Your task to perform on an android device: set an alarm Image 0: 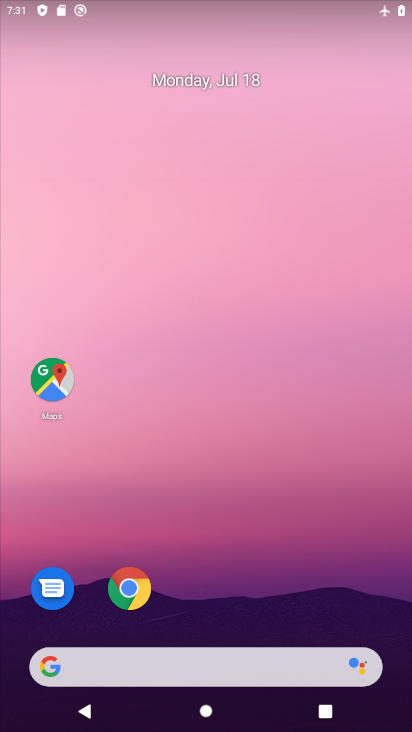
Step 0: drag from (179, 621) to (110, 37)
Your task to perform on an android device: set an alarm Image 1: 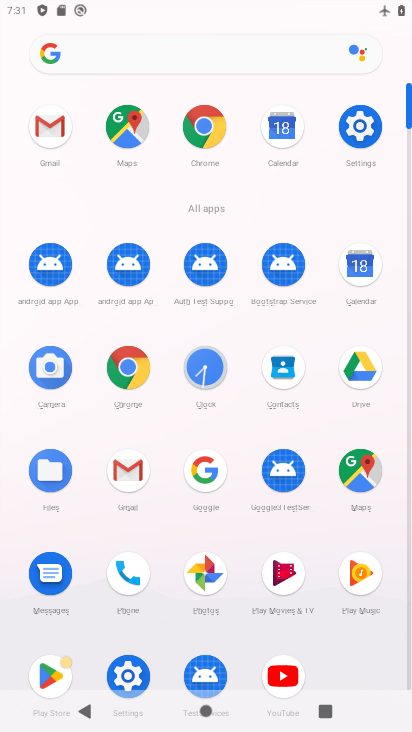
Step 1: click (202, 375)
Your task to perform on an android device: set an alarm Image 2: 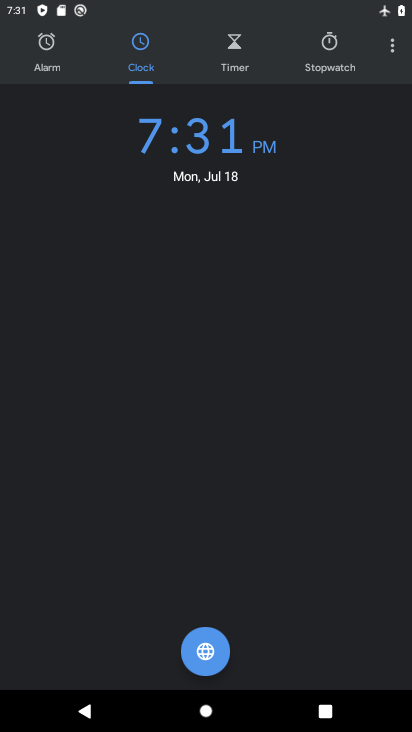
Step 2: click (55, 58)
Your task to perform on an android device: set an alarm Image 3: 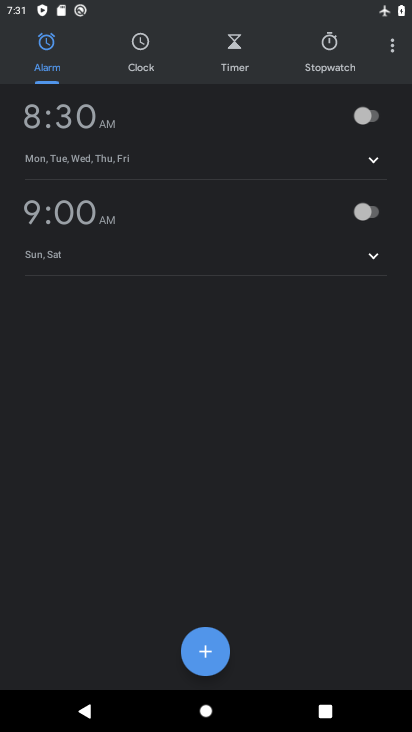
Step 3: click (183, 124)
Your task to perform on an android device: set an alarm Image 4: 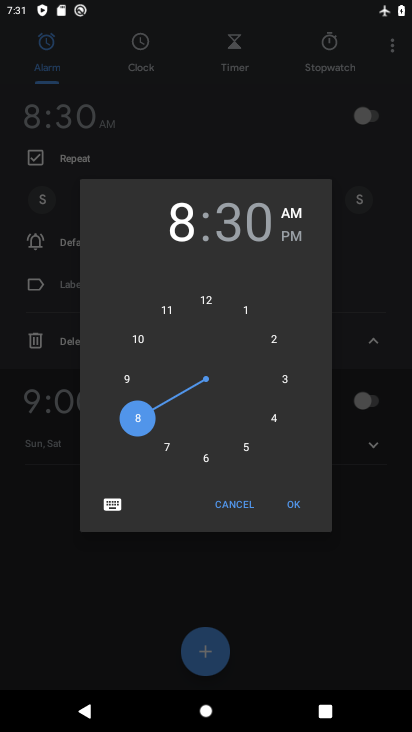
Step 4: click (172, 453)
Your task to perform on an android device: set an alarm Image 5: 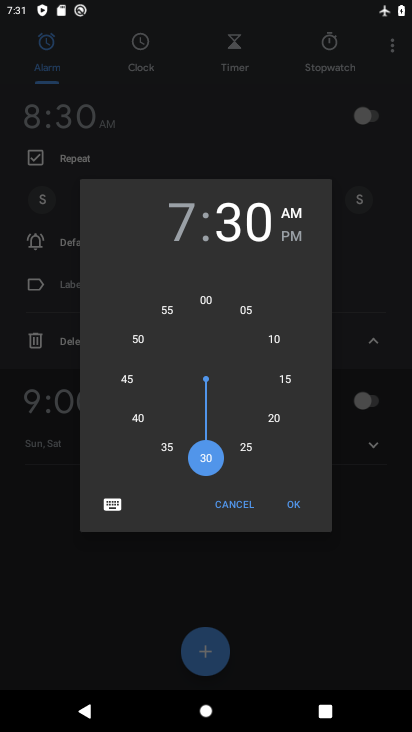
Step 5: click (267, 356)
Your task to perform on an android device: set an alarm Image 6: 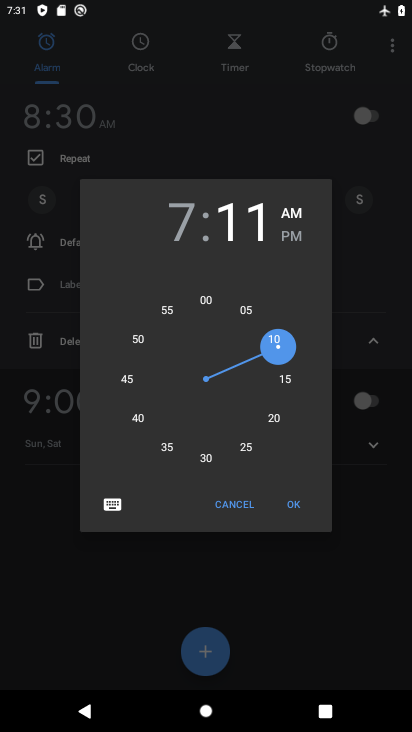
Step 6: click (270, 415)
Your task to perform on an android device: set an alarm Image 7: 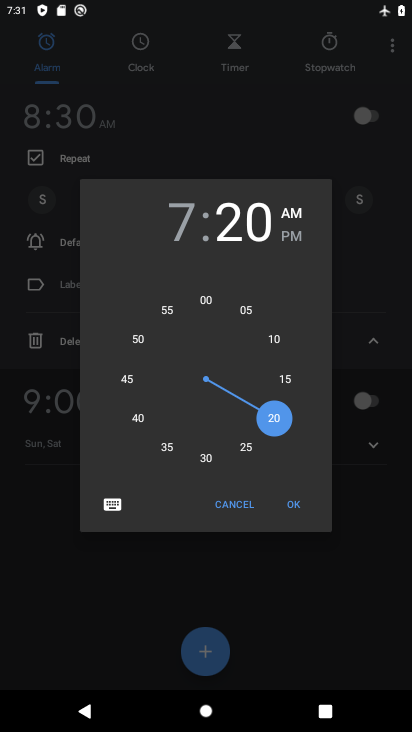
Step 7: click (299, 497)
Your task to perform on an android device: set an alarm Image 8: 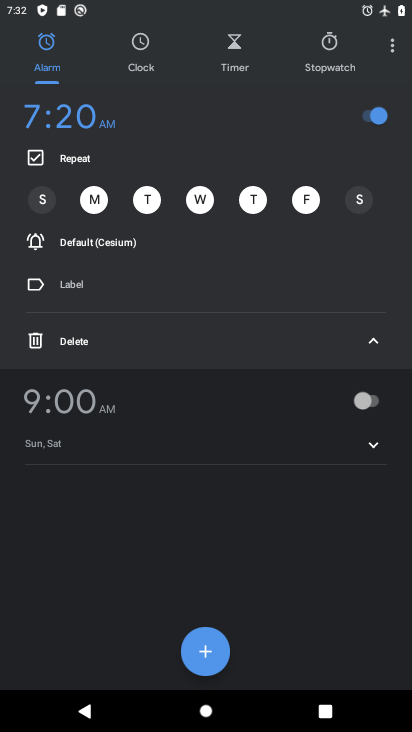
Step 8: task complete